Your task to perform on an android device: Is it going to rain this weekend? Image 0: 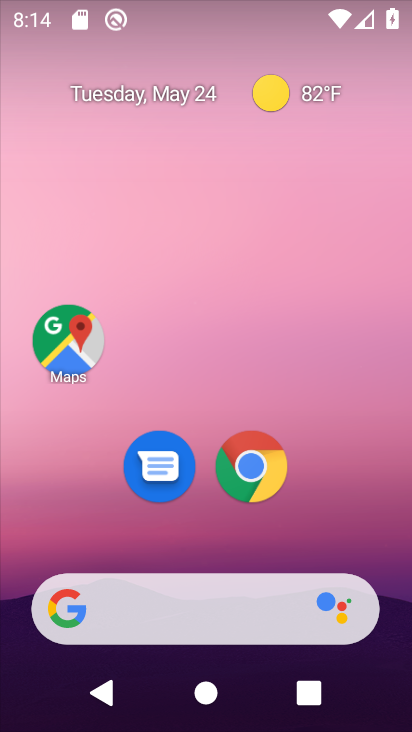
Step 0: drag from (213, 570) to (282, 200)
Your task to perform on an android device: Is it going to rain this weekend? Image 1: 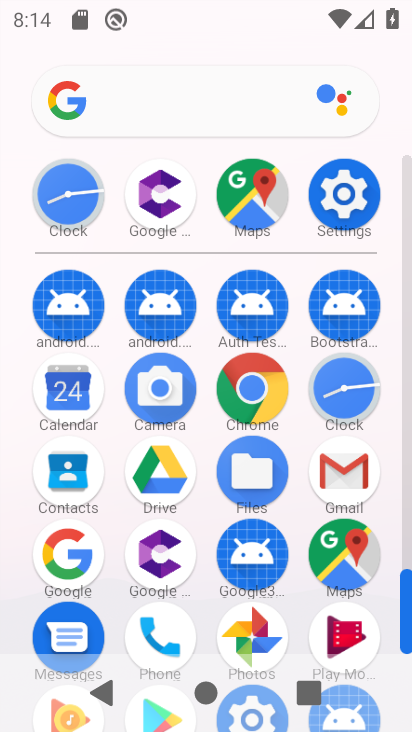
Step 1: click (45, 553)
Your task to perform on an android device: Is it going to rain this weekend? Image 2: 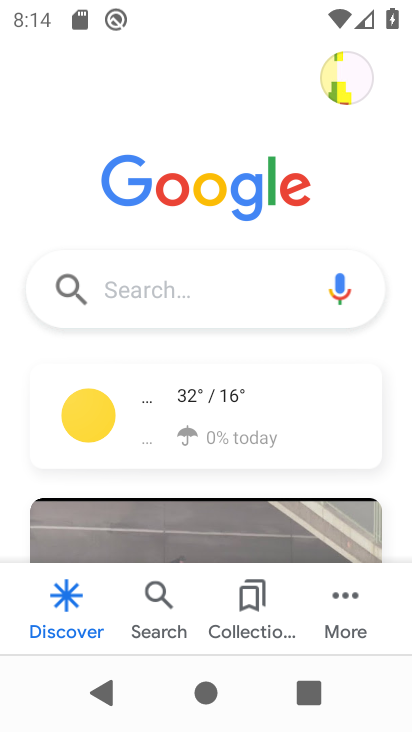
Step 2: click (199, 405)
Your task to perform on an android device: Is it going to rain this weekend? Image 3: 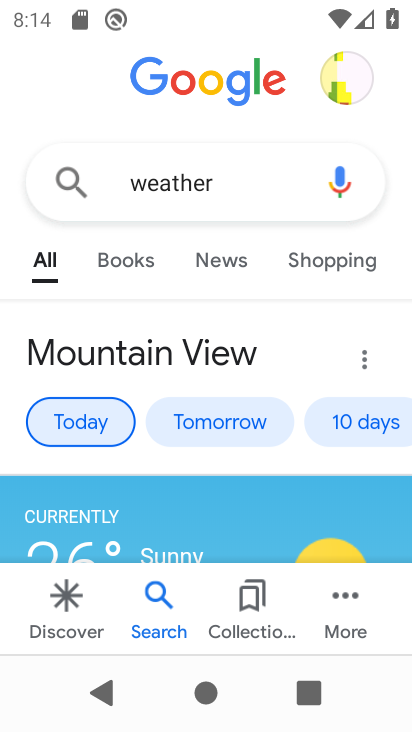
Step 3: click (344, 413)
Your task to perform on an android device: Is it going to rain this weekend? Image 4: 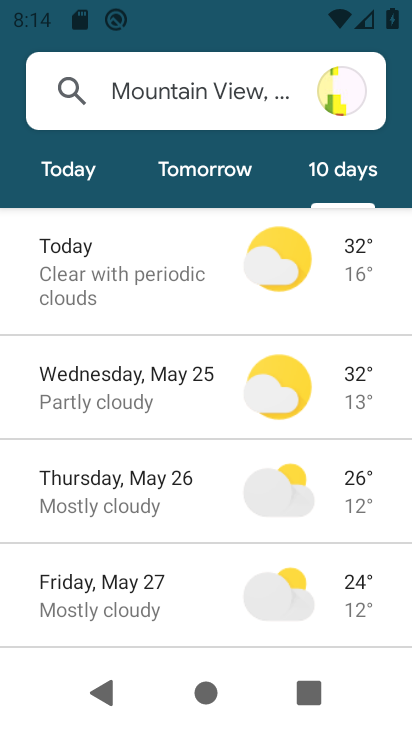
Step 4: task complete